Your task to perform on an android device: toggle wifi Image 0: 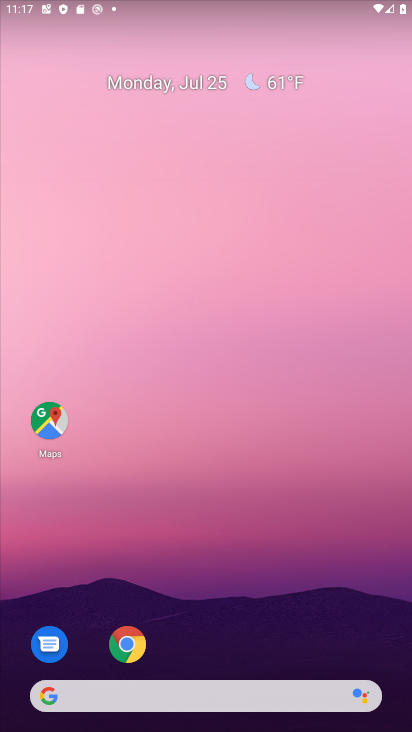
Step 0: drag from (249, 638) to (248, 114)
Your task to perform on an android device: toggle wifi Image 1: 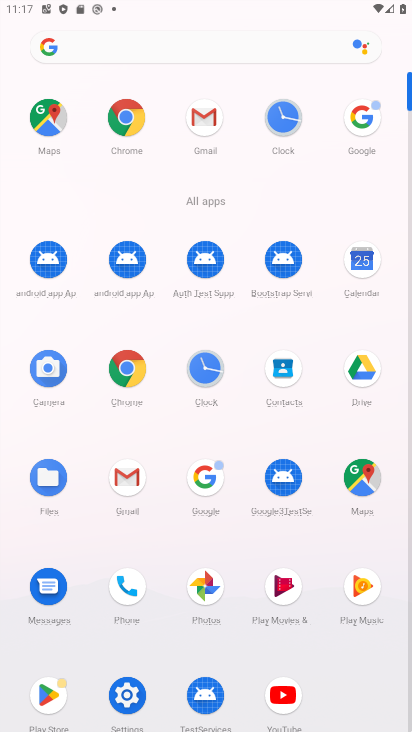
Step 1: click (126, 692)
Your task to perform on an android device: toggle wifi Image 2: 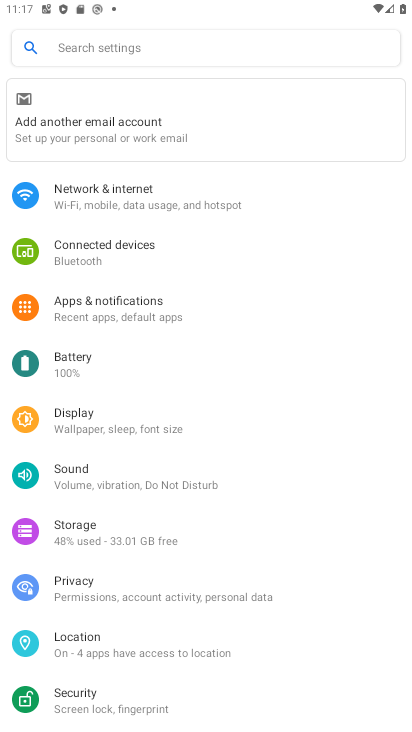
Step 2: click (130, 202)
Your task to perform on an android device: toggle wifi Image 3: 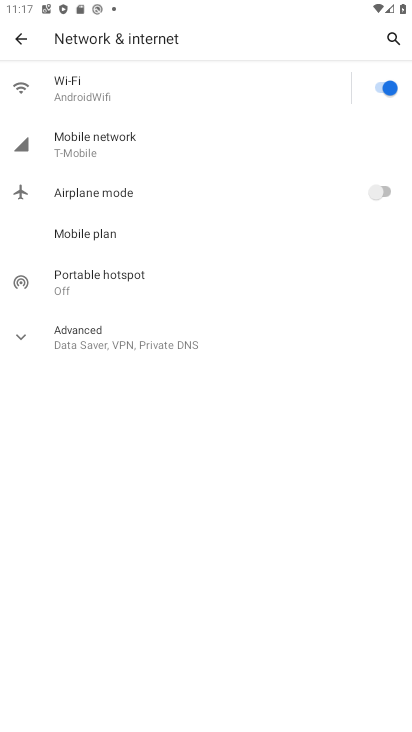
Step 3: click (377, 83)
Your task to perform on an android device: toggle wifi Image 4: 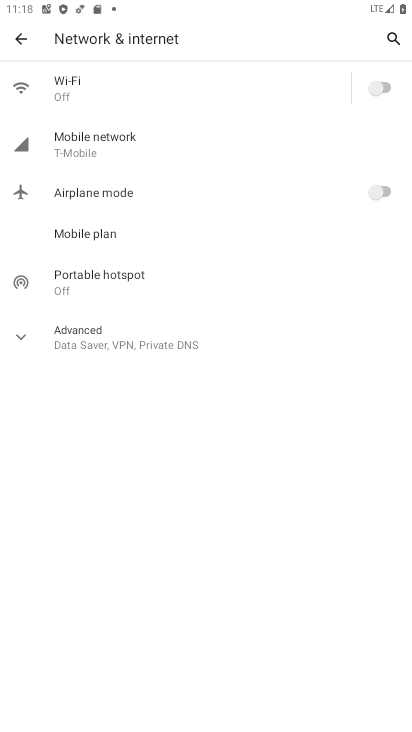
Step 4: task complete